Your task to perform on an android device: change the upload size in google photos Image 0: 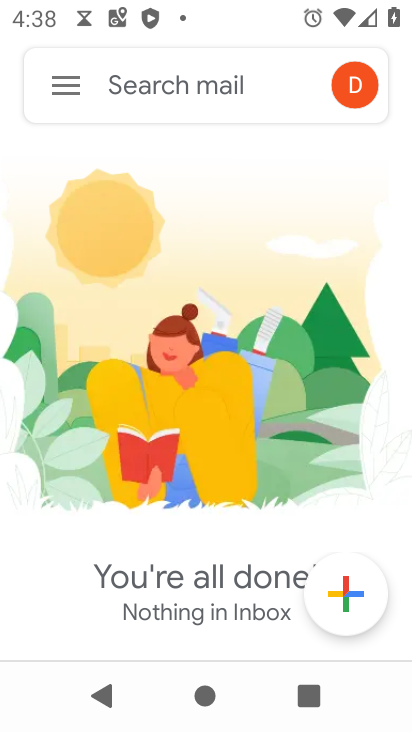
Step 0: press home button
Your task to perform on an android device: change the upload size in google photos Image 1: 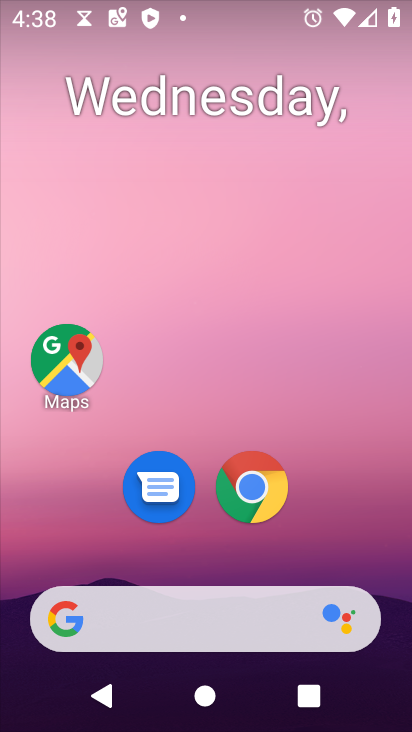
Step 1: drag from (211, 551) to (265, 33)
Your task to perform on an android device: change the upload size in google photos Image 2: 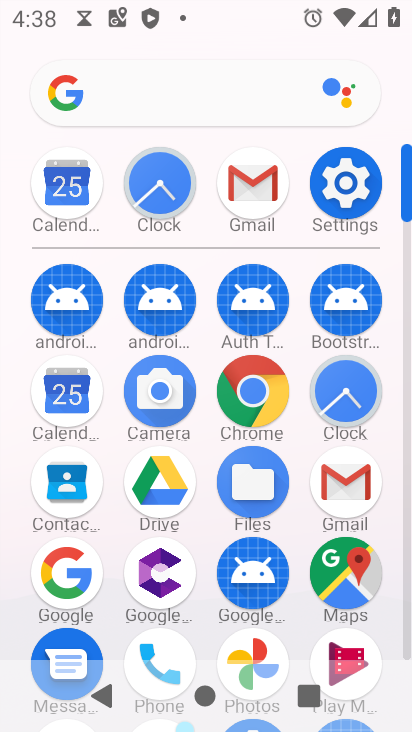
Step 2: drag from (205, 605) to (218, 64)
Your task to perform on an android device: change the upload size in google photos Image 3: 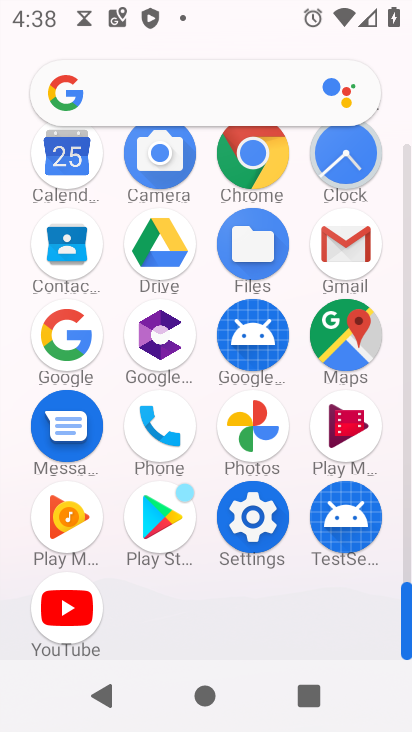
Step 3: click (250, 422)
Your task to perform on an android device: change the upload size in google photos Image 4: 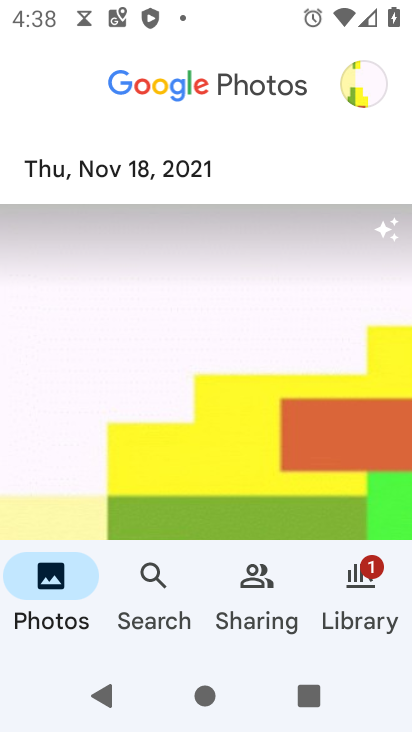
Step 4: click (371, 82)
Your task to perform on an android device: change the upload size in google photos Image 5: 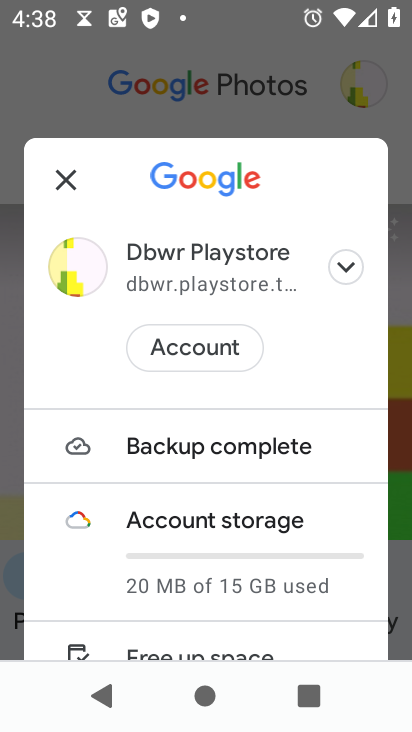
Step 5: click (236, 456)
Your task to perform on an android device: change the upload size in google photos Image 6: 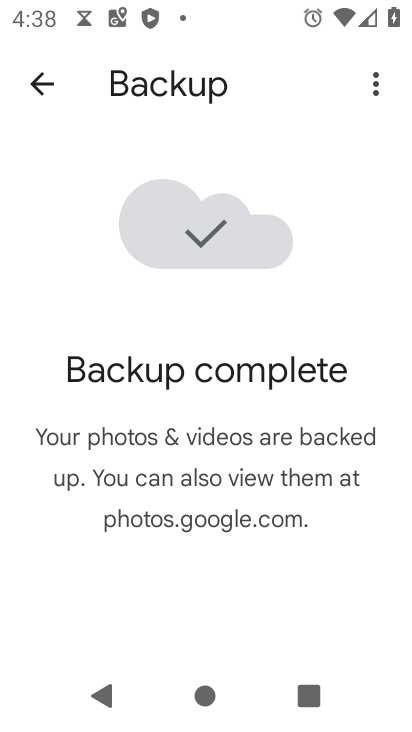
Step 6: click (364, 81)
Your task to perform on an android device: change the upload size in google photos Image 7: 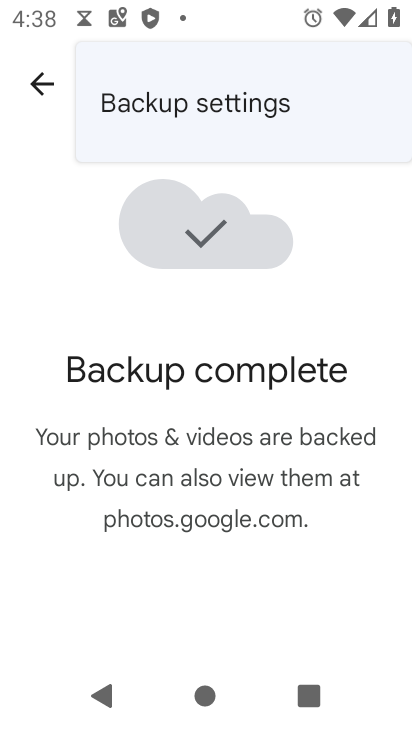
Step 7: click (224, 126)
Your task to perform on an android device: change the upload size in google photos Image 8: 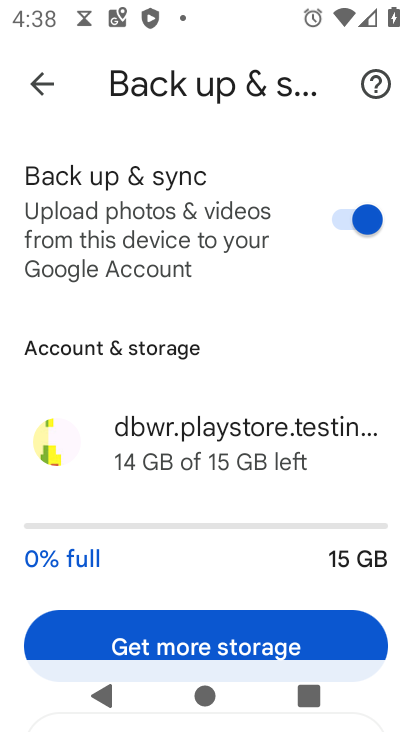
Step 8: drag from (233, 502) to (245, 104)
Your task to perform on an android device: change the upload size in google photos Image 9: 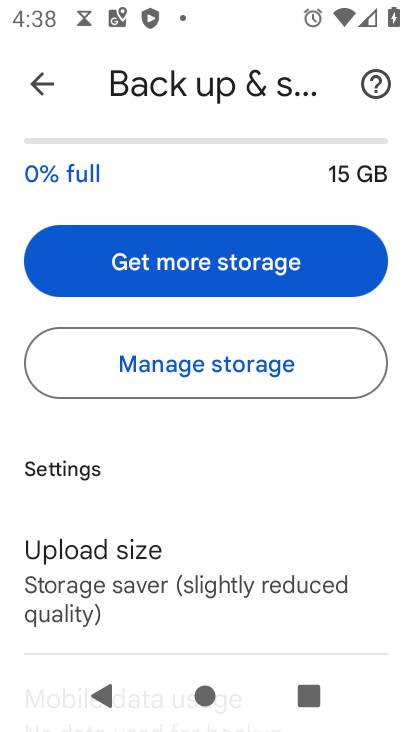
Step 9: click (190, 574)
Your task to perform on an android device: change the upload size in google photos Image 10: 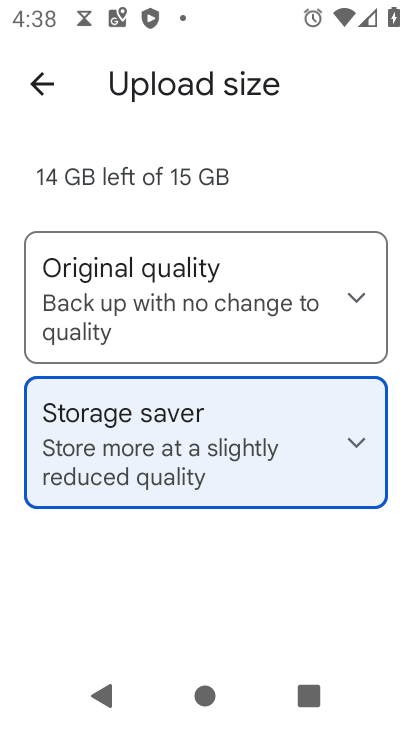
Step 10: click (186, 295)
Your task to perform on an android device: change the upload size in google photos Image 11: 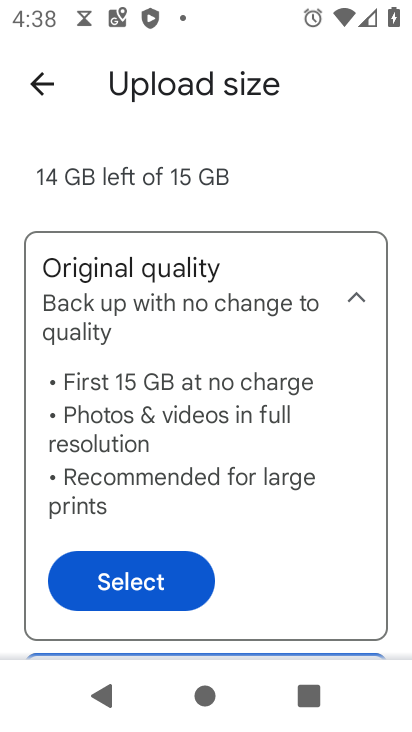
Step 11: click (147, 590)
Your task to perform on an android device: change the upload size in google photos Image 12: 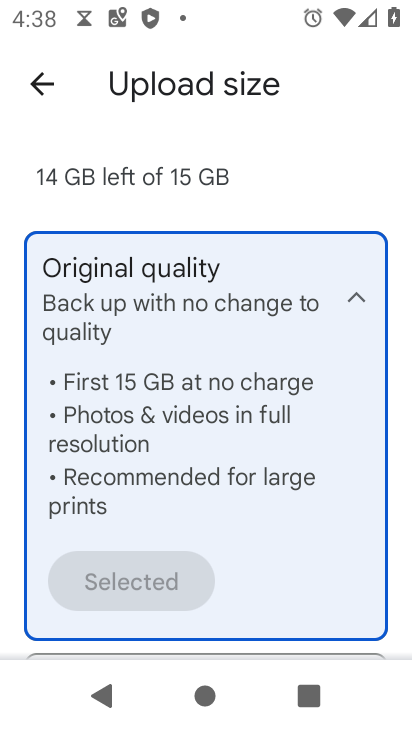
Step 12: task complete